Your task to perform on an android device: Go to Android settings Image 0: 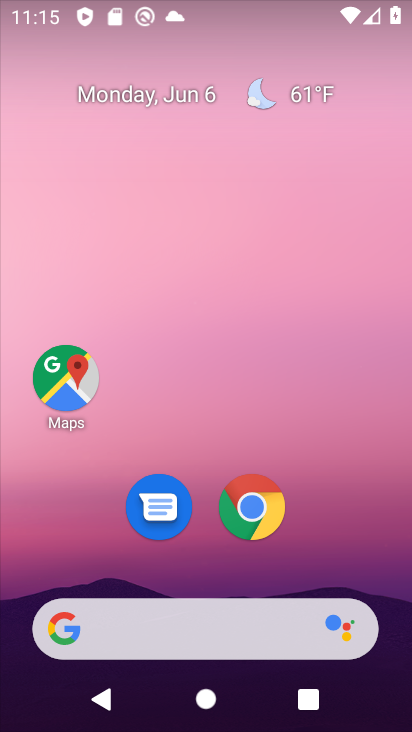
Step 0: drag from (300, 562) to (264, 85)
Your task to perform on an android device: Go to Android settings Image 1: 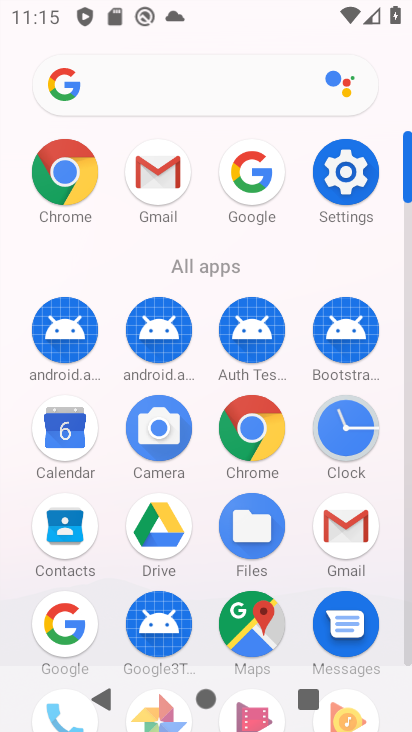
Step 1: click (350, 175)
Your task to perform on an android device: Go to Android settings Image 2: 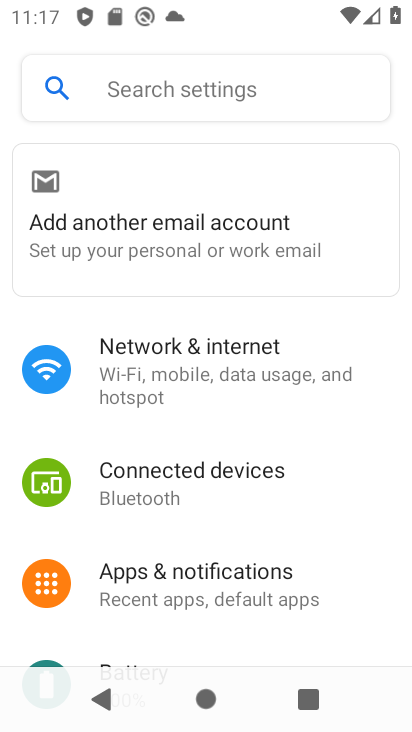
Step 2: task complete